Your task to perform on an android device: check out phone information Image 0: 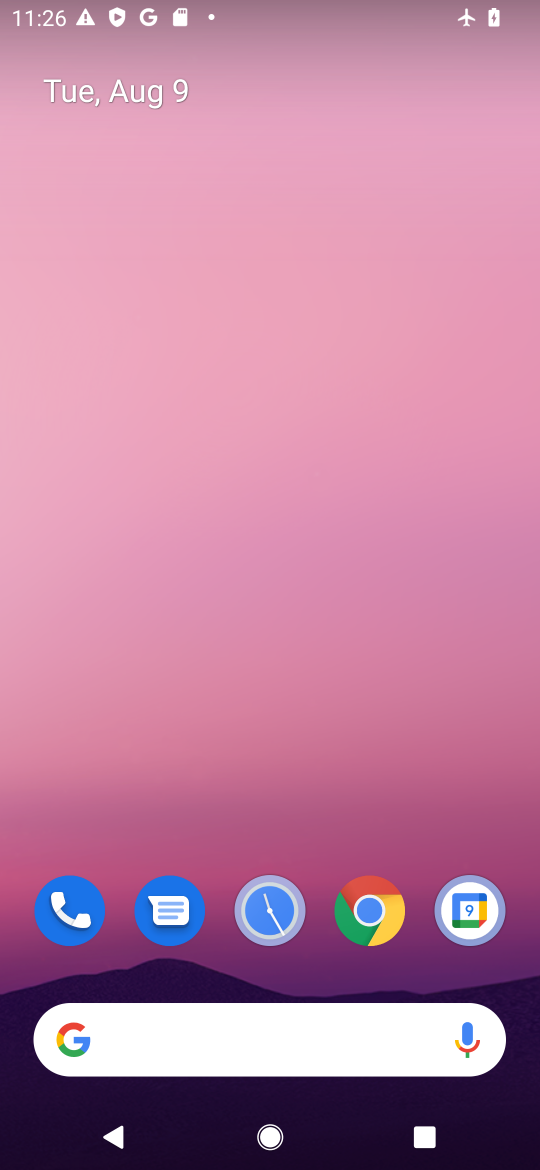
Step 0: drag from (135, 680) to (347, 156)
Your task to perform on an android device: check out phone information Image 1: 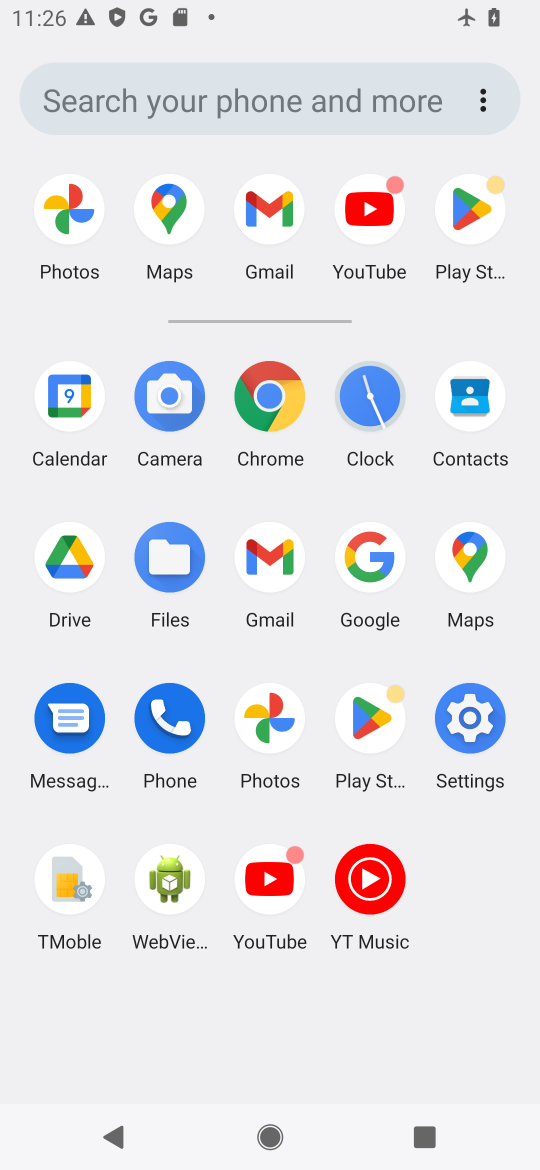
Step 1: click (161, 733)
Your task to perform on an android device: check out phone information Image 2: 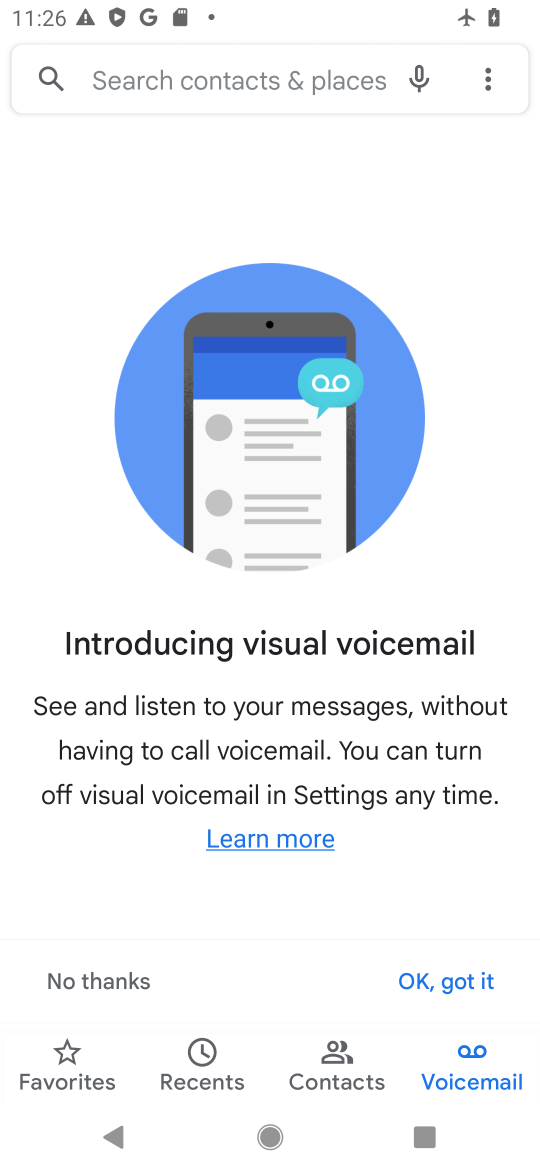
Step 2: task complete